Your task to perform on an android device: toggle data saver in the chrome app Image 0: 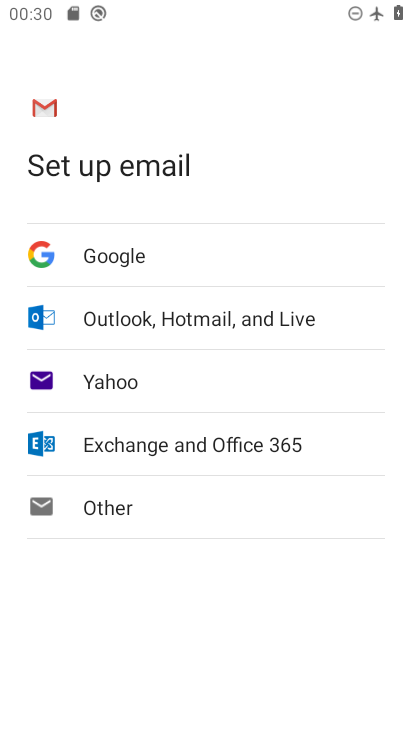
Step 0: press home button
Your task to perform on an android device: toggle data saver in the chrome app Image 1: 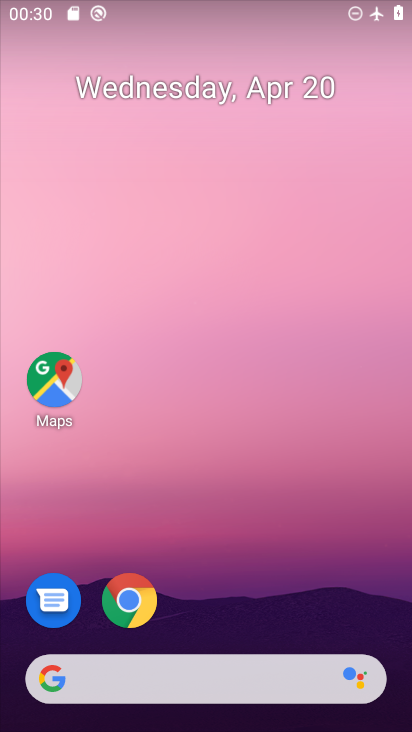
Step 1: drag from (380, 558) to (374, 205)
Your task to perform on an android device: toggle data saver in the chrome app Image 2: 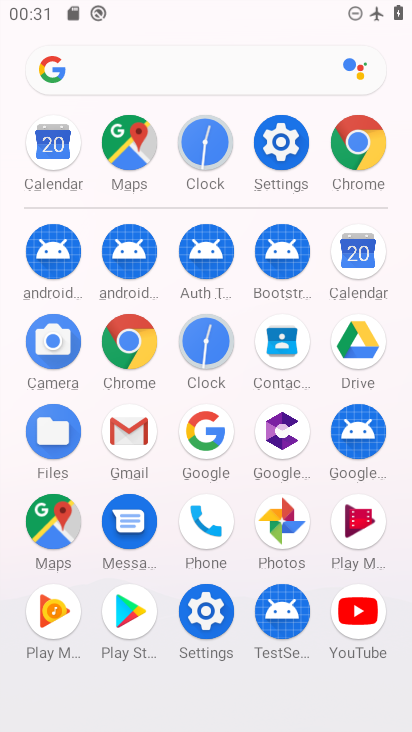
Step 2: click (347, 147)
Your task to perform on an android device: toggle data saver in the chrome app Image 3: 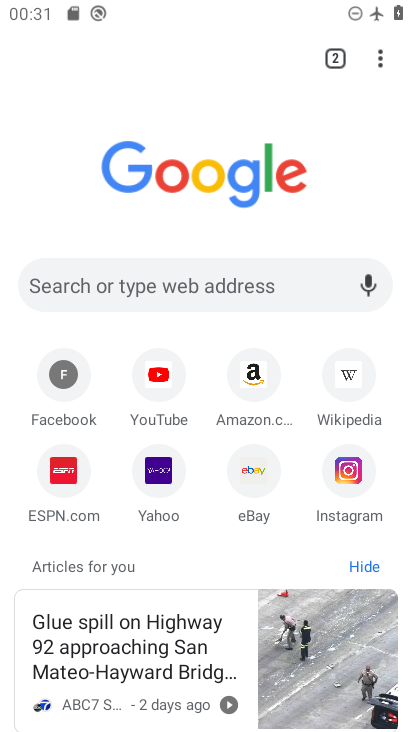
Step 3: click (380, 67)
Your task to perform on an android device: toggle data saver in the chrome app Image 4: 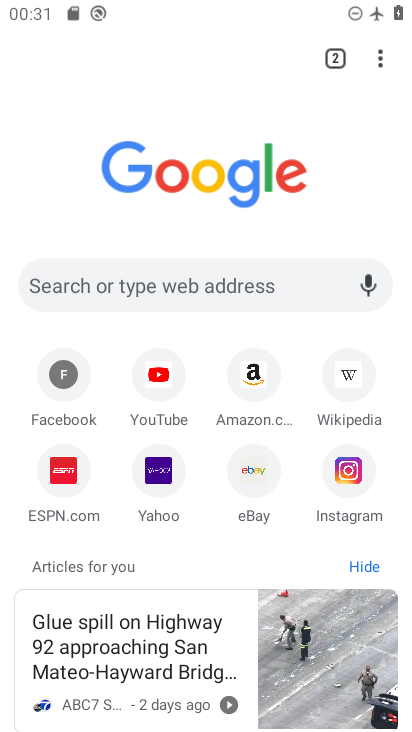
Step 4: click (385, 78)
Your task to perform on an android device: toggle data saver in the chrome app Image 5: 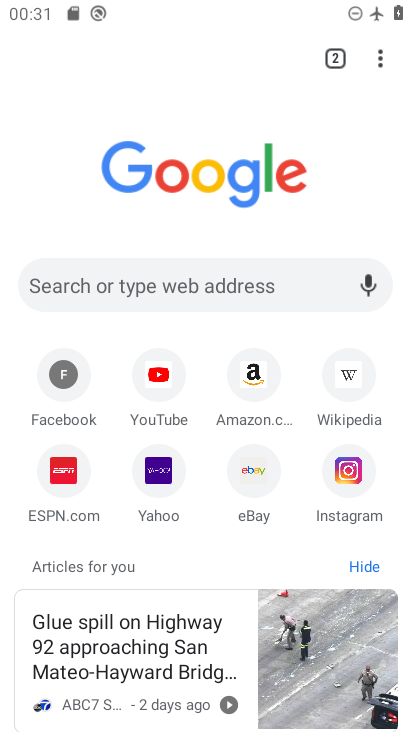
Step 5: click (406, 71)
Your task to perform on an android device: toggle data saver in the chrome app Image 6: 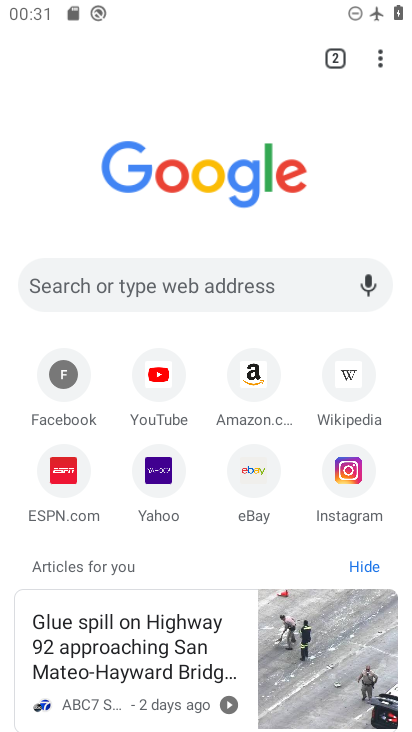
Step 6: drag from (385, 53) to (189, 563)
Your task to perform on an android device: toggle data saver in the chrome app Image 7: 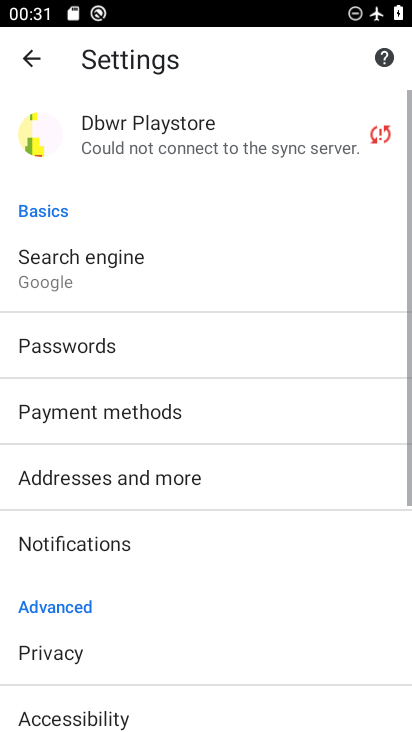
Step 7: drag from (241, 609) to (266, 334)
Your task to perform on an android device: toggle data saver in the chrome app Image 8: 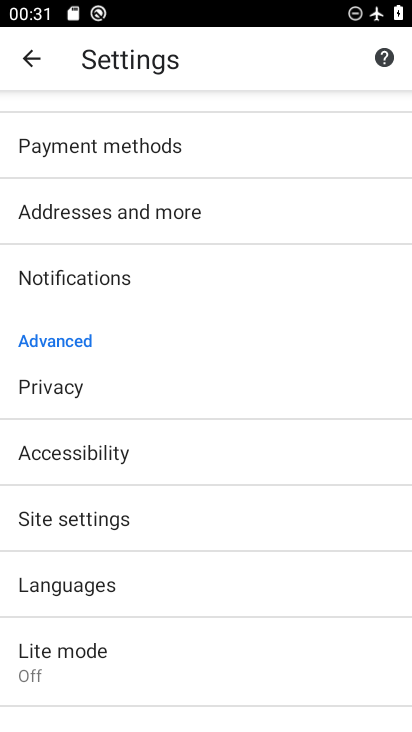
Step 8: click (123, 653)
Your task to perform on an android device: toggle data saver in the chrome app Image 9: 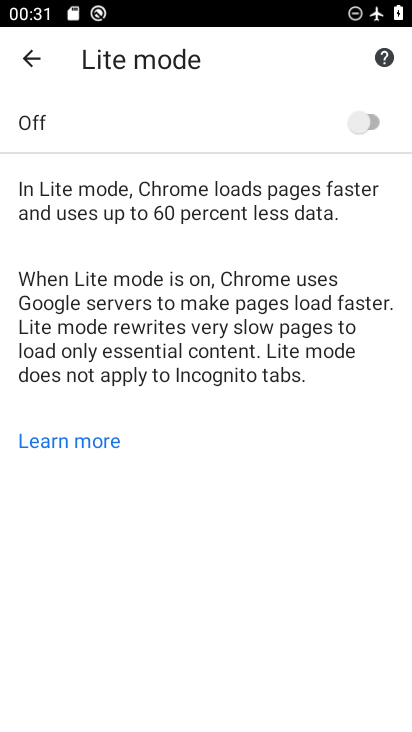
Step 9: click (370, 126)
Your task to perform on an android device: toggle data saver in the chrome app Image 10: 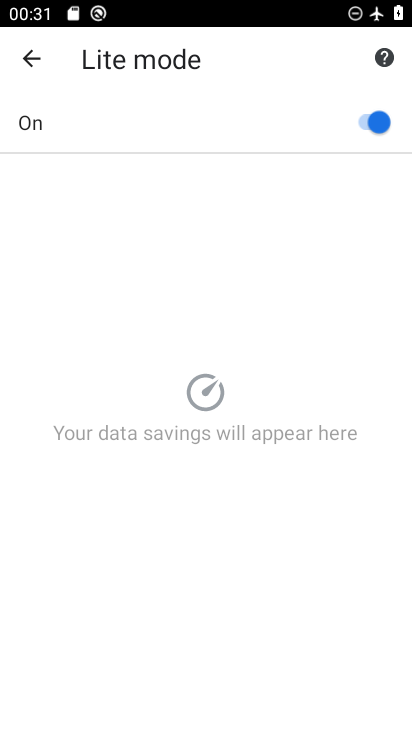
Step 10: task complete